Your task to perform on an android device: turn on wifi Image 0: 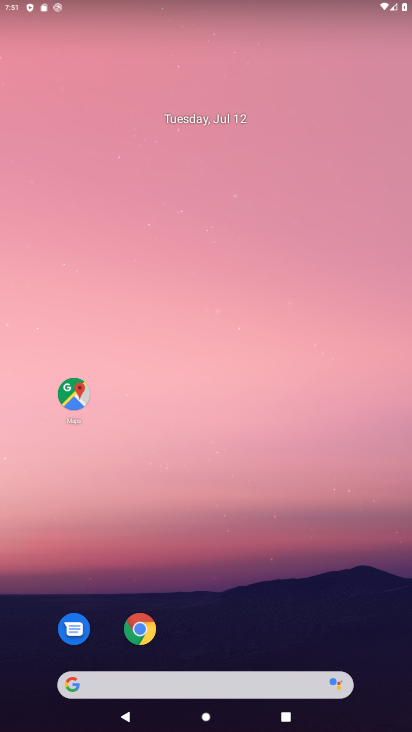
Step 0: drag from (164, 573) to (348, 0)
Your task to perform on an android device: turn on wifi Image 1: 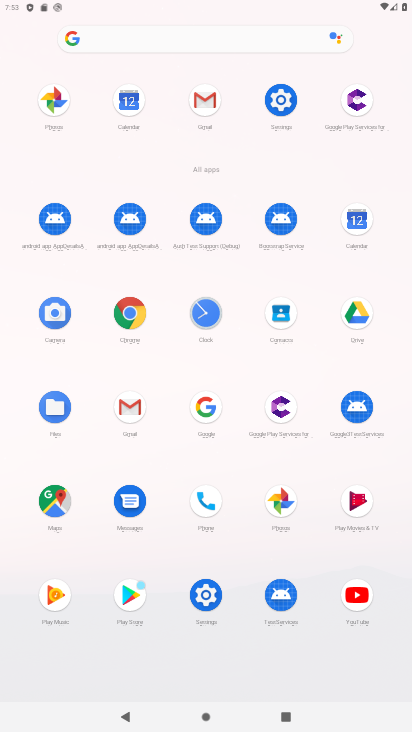
Step 1: click (283, 104)
Your task to perform on an android device: turn on wifi Image 2: 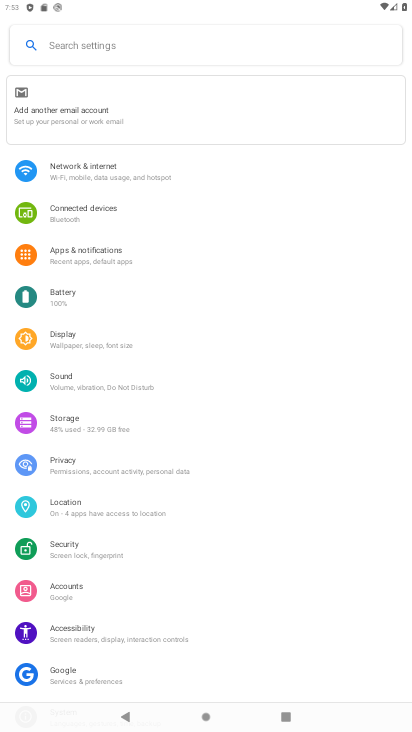
Step 2: click (165, 168)
Your task to perform on an android device: turn on wifi Image 3: 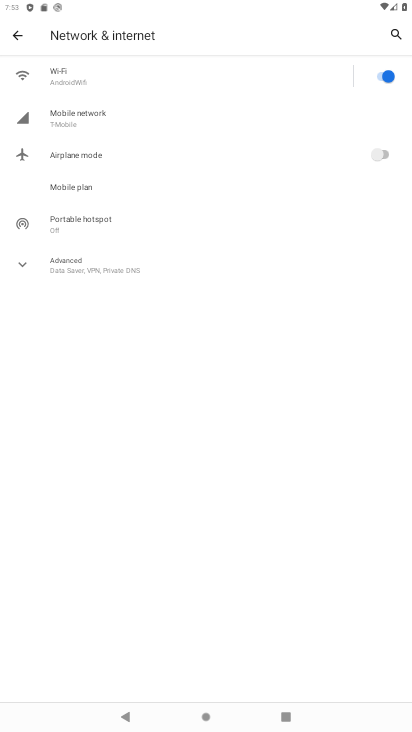
Step 3: task complete